Your task to perform on an android device: open app "Microsoft Authenticator" Image 0: 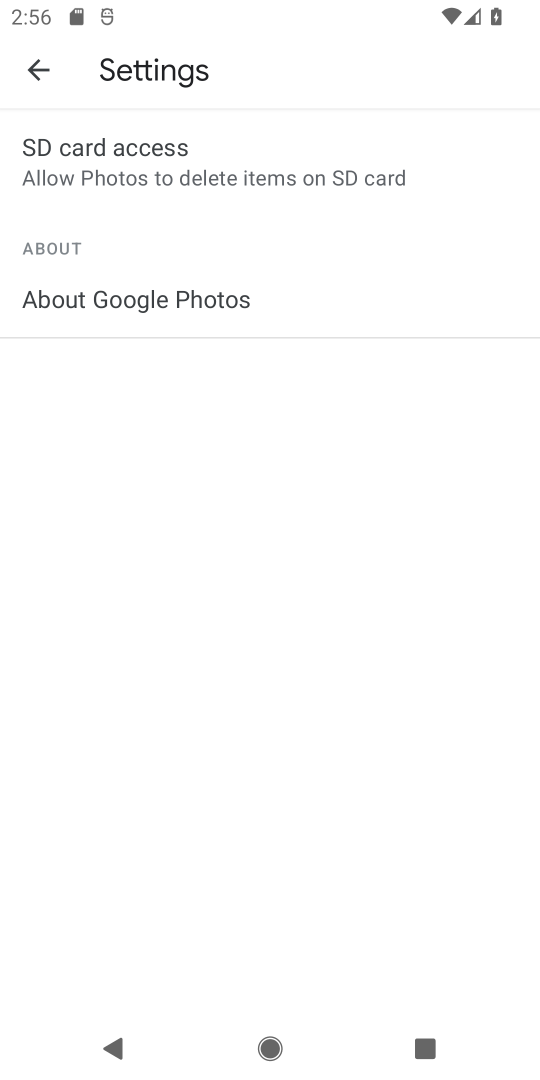
Step 0: press home button
Your task to perform on an android device: open app "Microsoft Authenticator" Image 1: 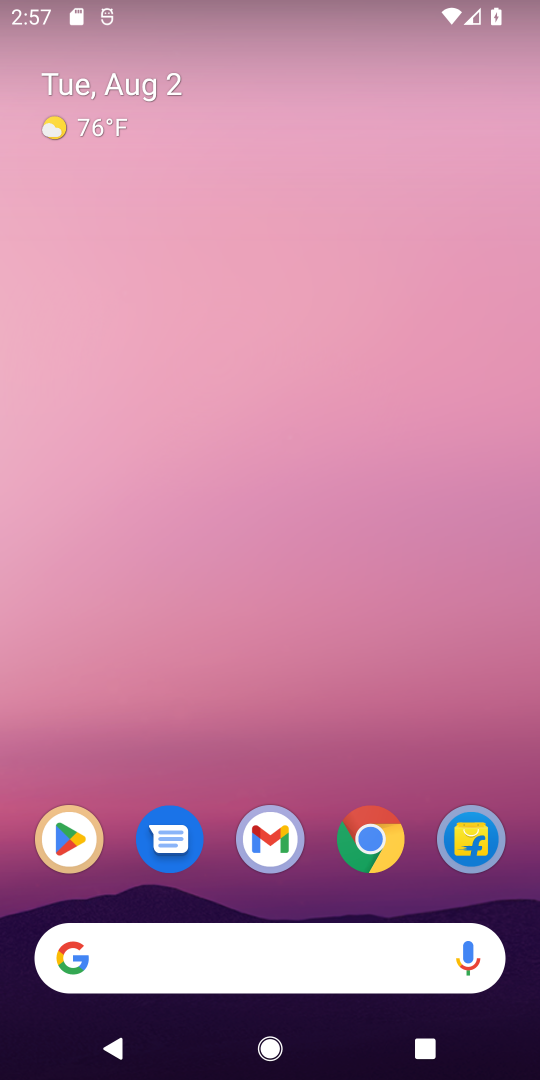
Step 1: click (79, 831)
Your task to perform on an android device: open app "Microsoft Authenticator" Image 2: 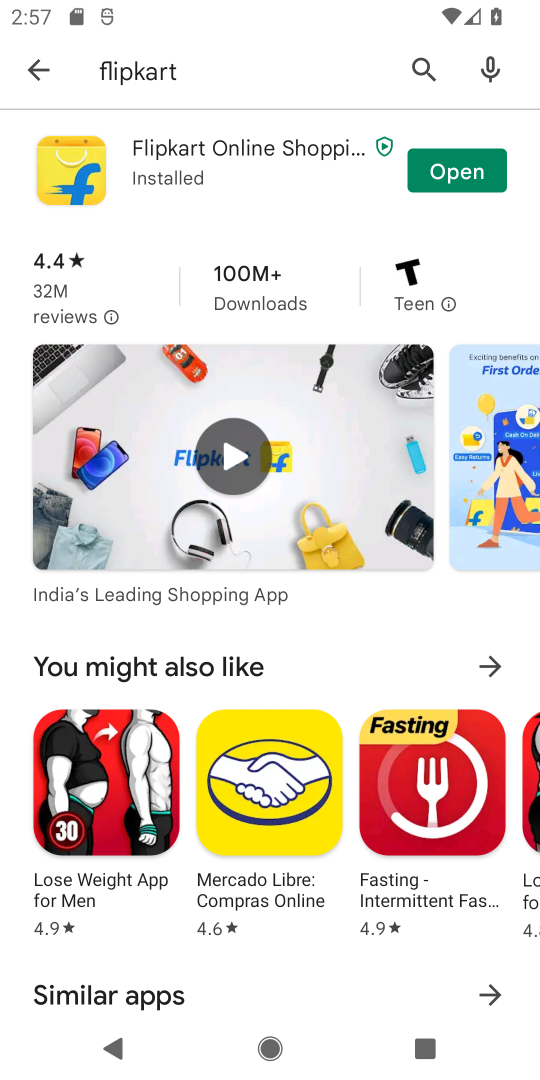
Step 2: click (412, 88)
Your task to perform on an android device: open app "Microsoft Authenticator" Image 3: 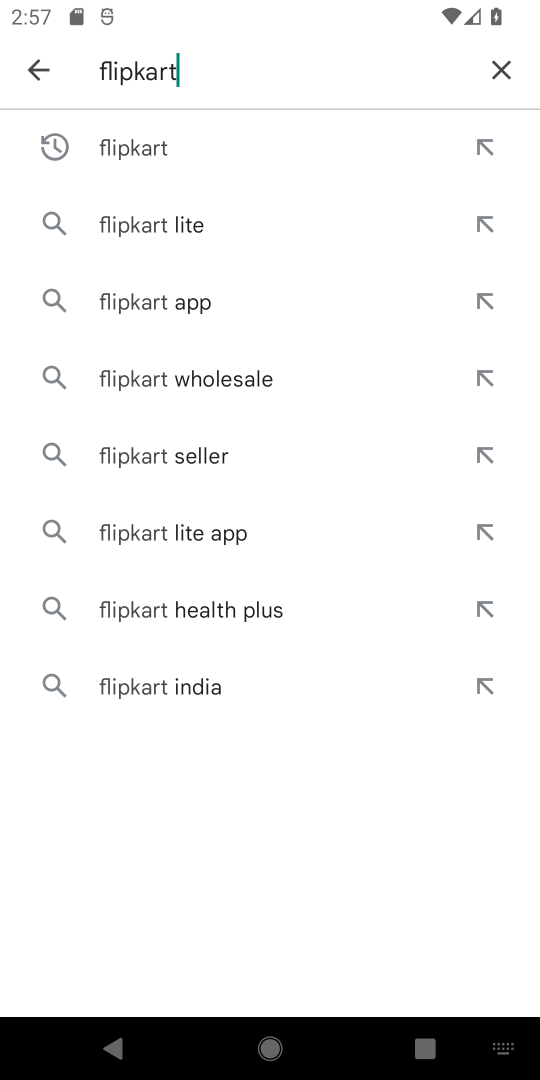
Step 3: click (493, 78)
Your task to perform on an android device: open app "Microsoft Authenticator" Image 4: 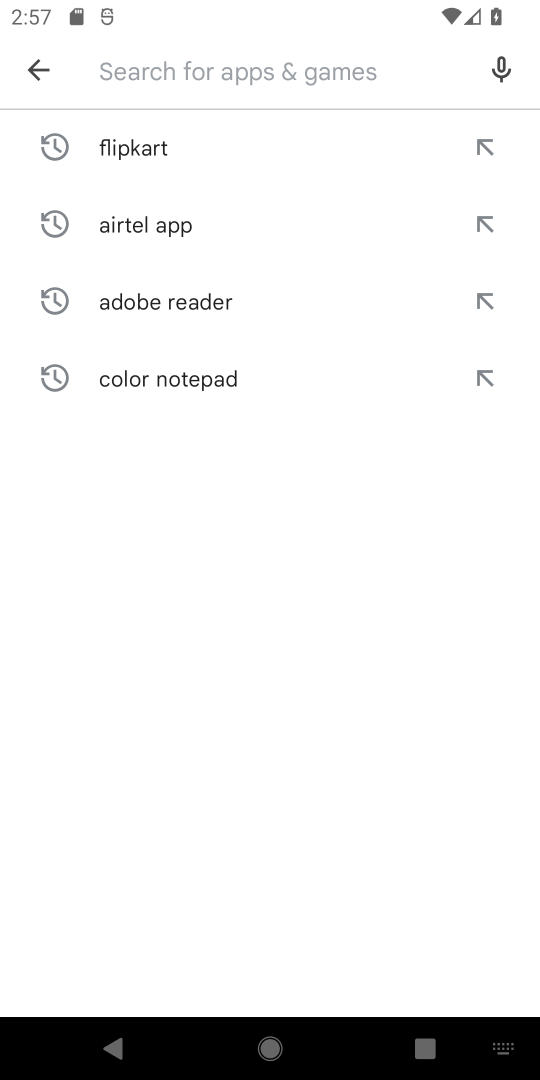
Step 4: type "microsoft"
Your task to perform on an android device: open app "Microsoft Authenticator" Image 5: 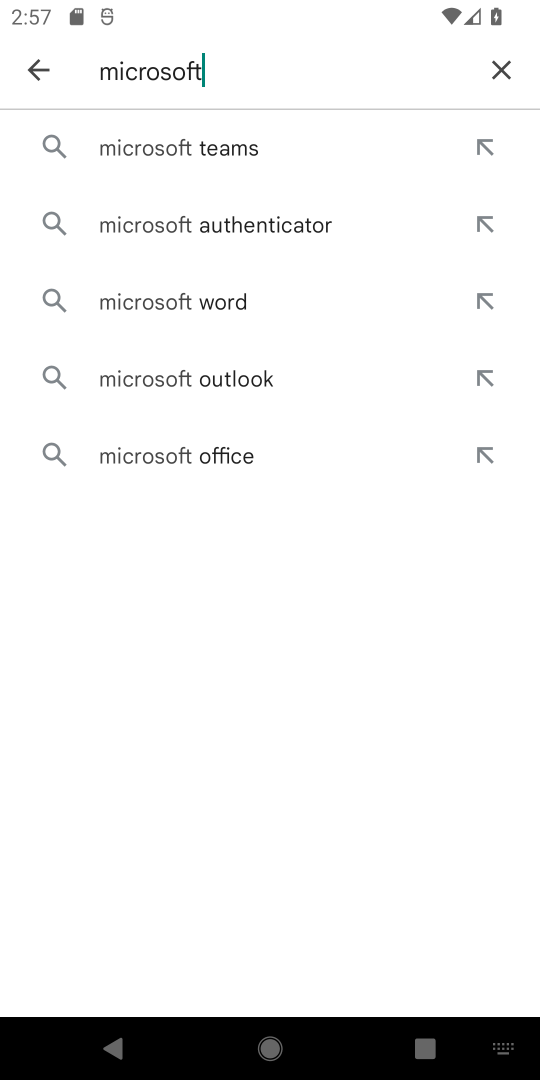
Step 5: click (244, 172)
Your task to perform on an android device: open app "Microsoft Authenticator" Image 6: 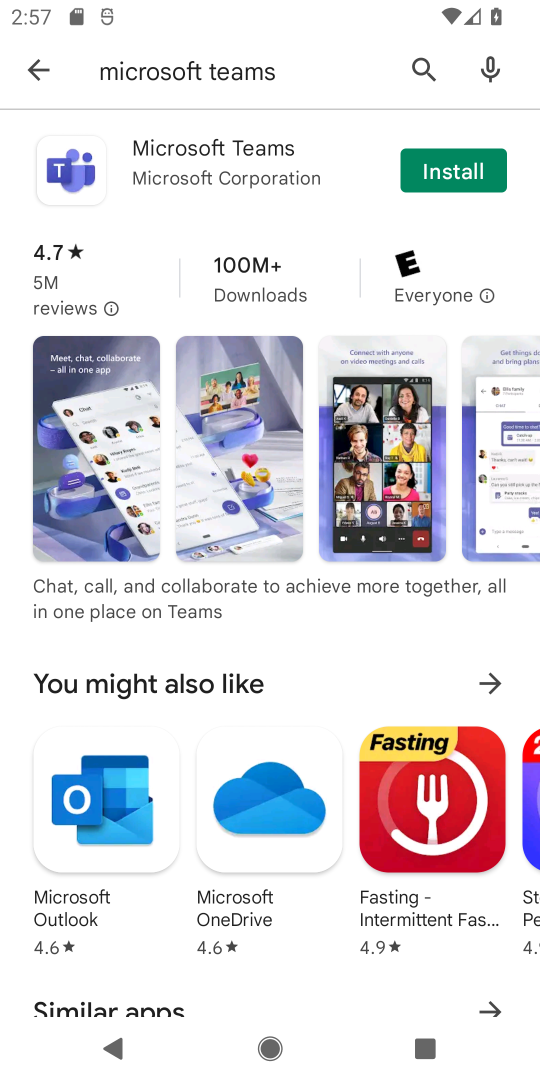
Step 6: click (433, 171)
Your task to perform on an android device: open app "Microsoft Authenticator" Image 7: 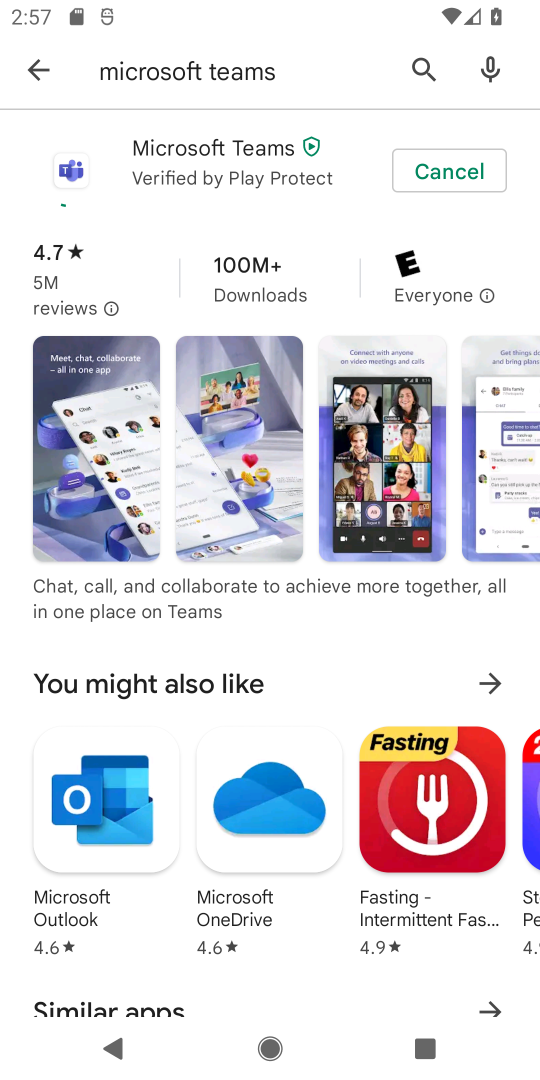
Step 7: click (433, 171)
Your task to perform on an android device: open app "Microsoft Authenticator" Image 8: 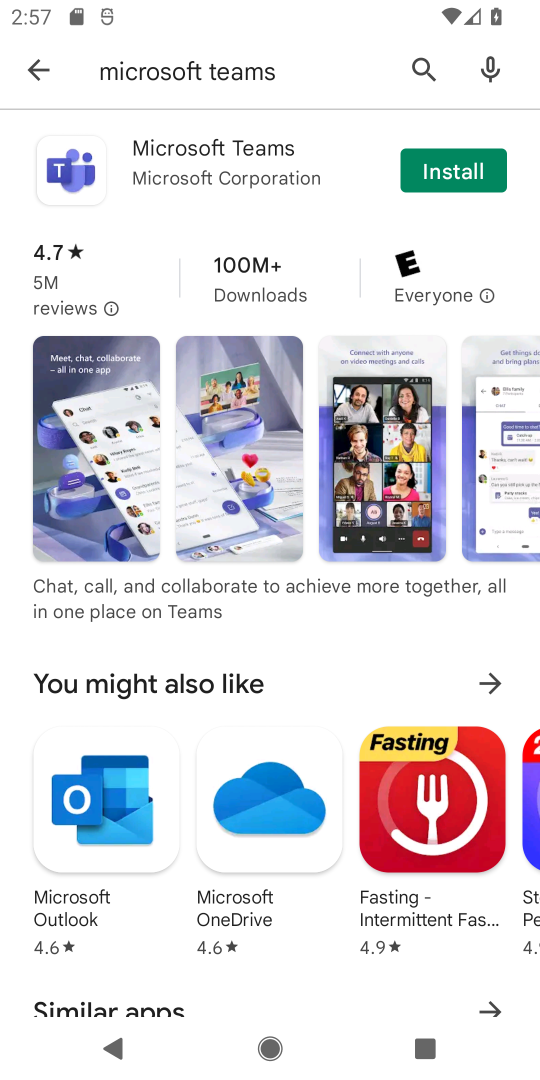
Step 8: click (423, 92)
Your task to perform on an android device: open app "Microsoft Authenticator" Image 9: 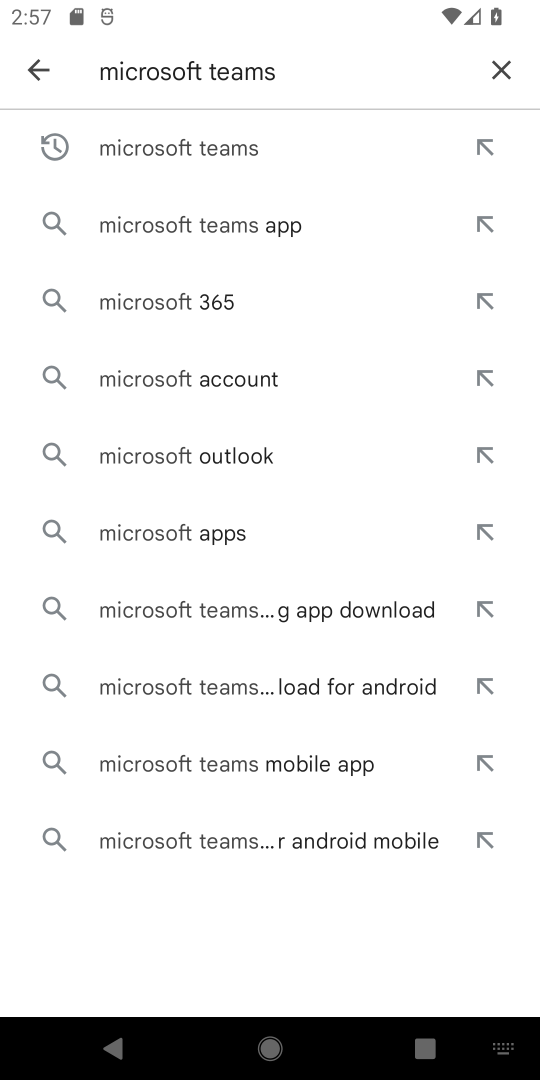
Step 9: click (512, 89)
Your task to perform on an android device: open app "Microsoft Authenticator" Image 10: 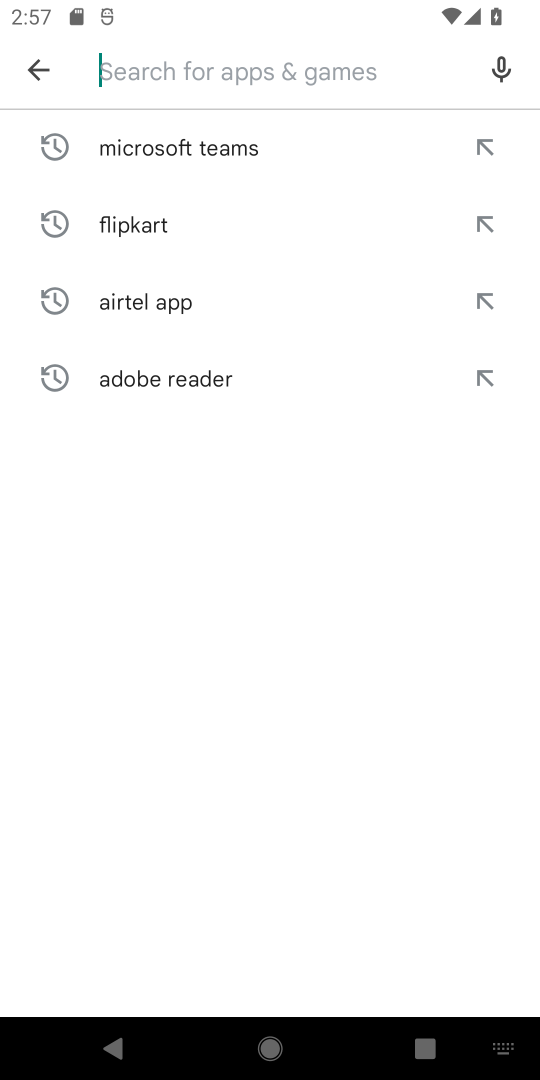
Step 10: type "authenticator"
Your task to perform on an android device: open app "Microsoft Authenticator" Image 11: 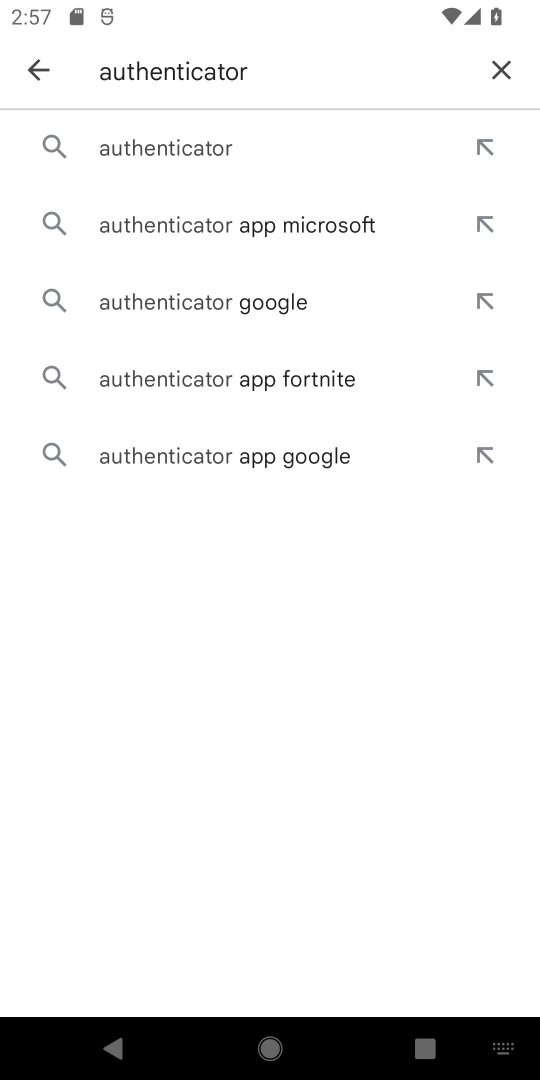
Step 11: click (283, 200)
Your task to perform on an android device: open app "Microsoft Authenticator" Image 12: 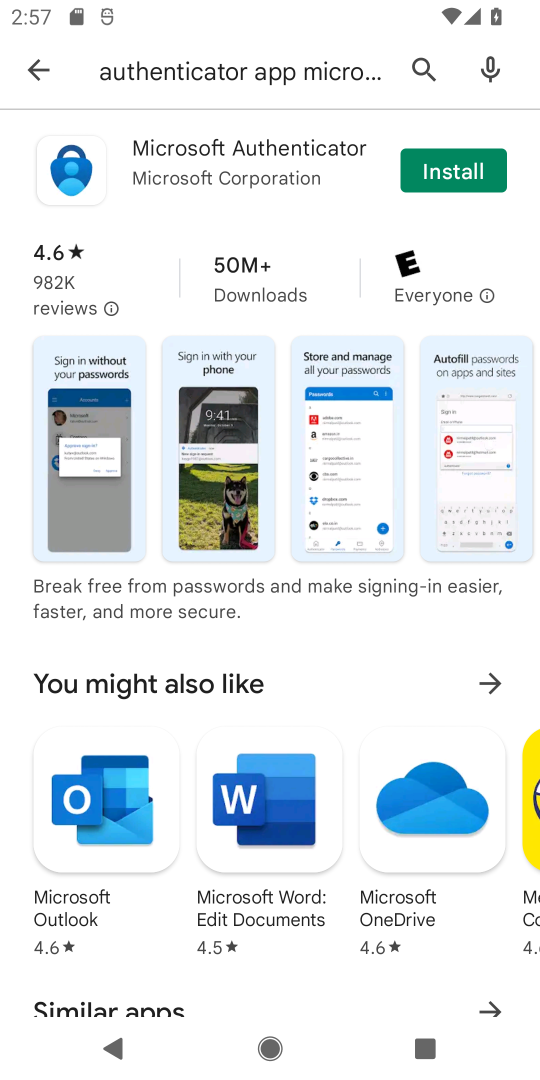
Step 12: click (412, 173)
Your task to perform on an android device: open app "Microsoft Authenticator" Image 13: 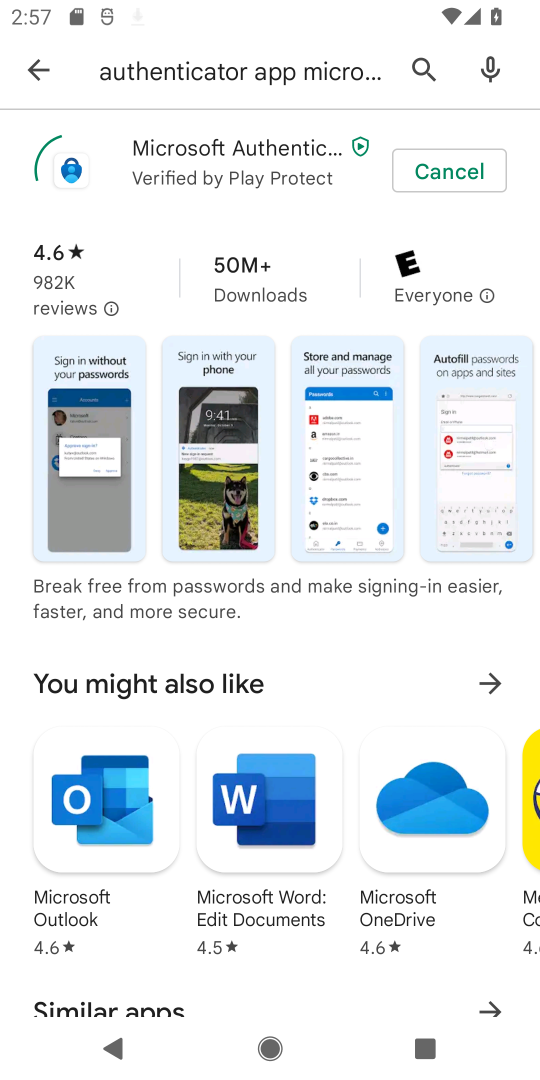
Step 13: task complete